Your task to perform on an android device: turn off notifications settings in the gmail app Image 0: 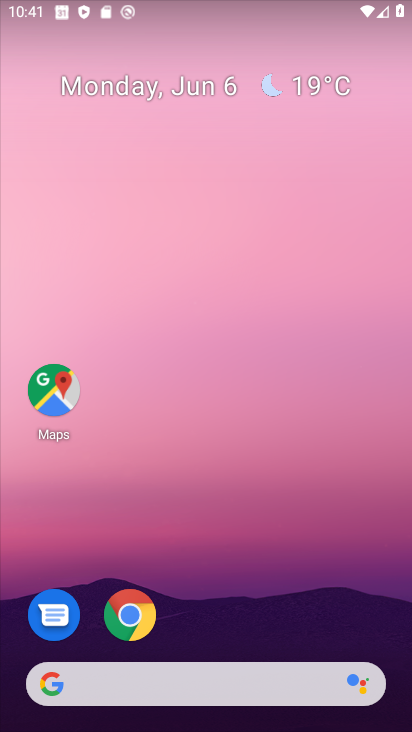
Step 0: drag from (254, 641) to (221, 147)
Your task to perform on an android device: turn off notifications settings in the gmail app Image 1: 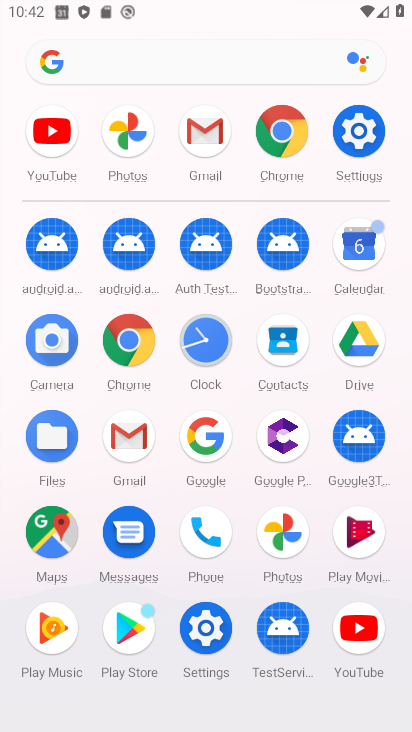
Step 1: click (119, 443)
Your task to perform on an android device: turn off notifications settings in the gmail app Image 2: 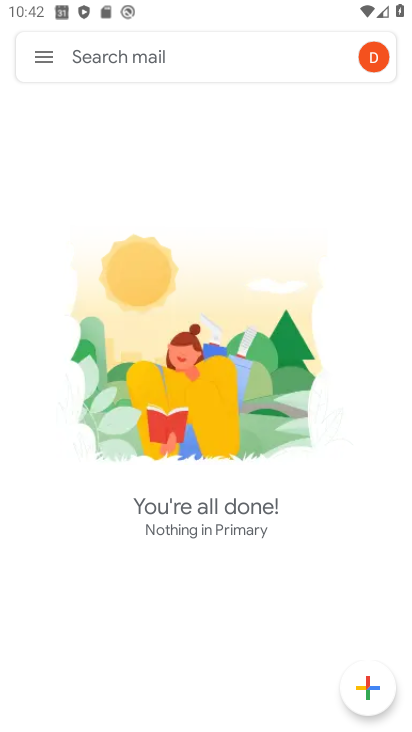
Step 2: task complete